Your task to perform on an android device: Set the phone to "Do not disturb". Image 0: 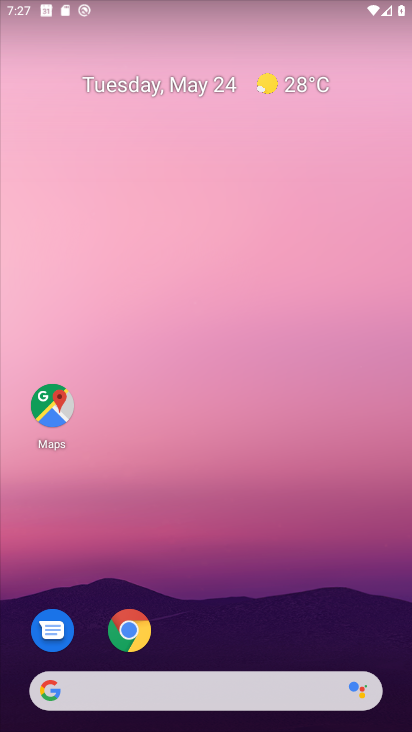
Step 0: drag from (268, 666) to (237, 228)
Your task to perform on an android device: Set the phone to "Do not disturb". Image 1: 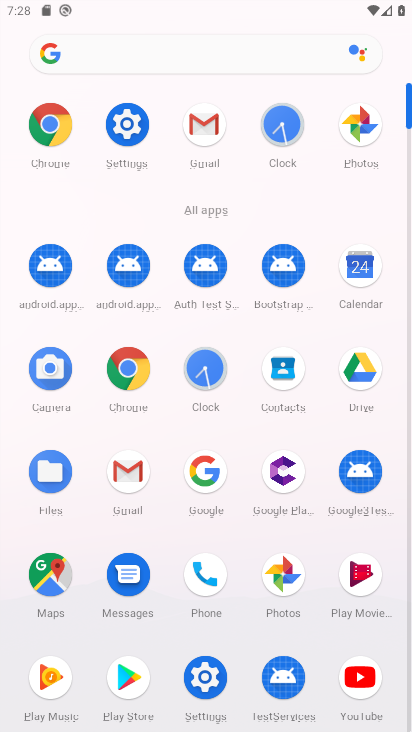
Step 1: click (147, 139)
Your task to perform on an android device: Set the phone to "Do not disturb". Image 2: 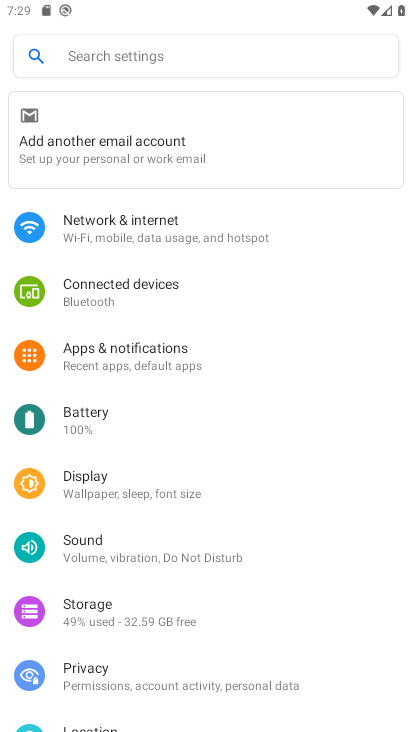
Step 2: click (92, 54)
Your task to perform on an android device: Set the phone to "Do not disturb". Image 3: 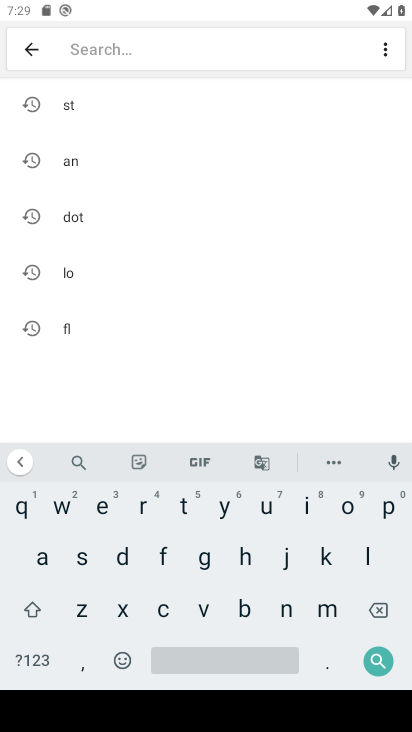
Step 3: click (119, 556)
Your task to perform on an android device: Set the phone to "Do not disturb". Image 4: 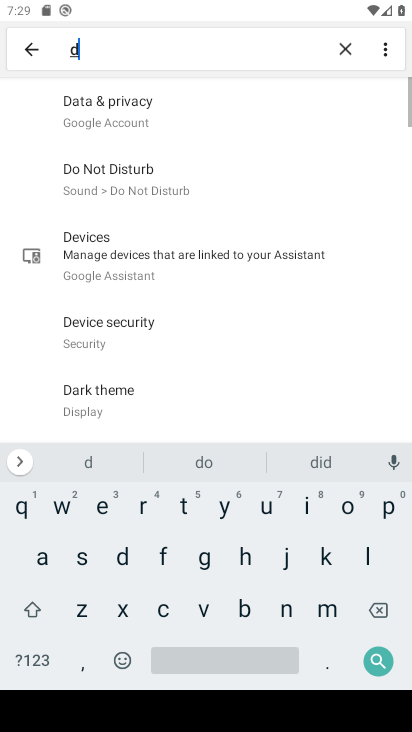
Step 4: click (285, 614)
Your task to perform on an android device: Set the phone to "Do not disturb". Image 5: 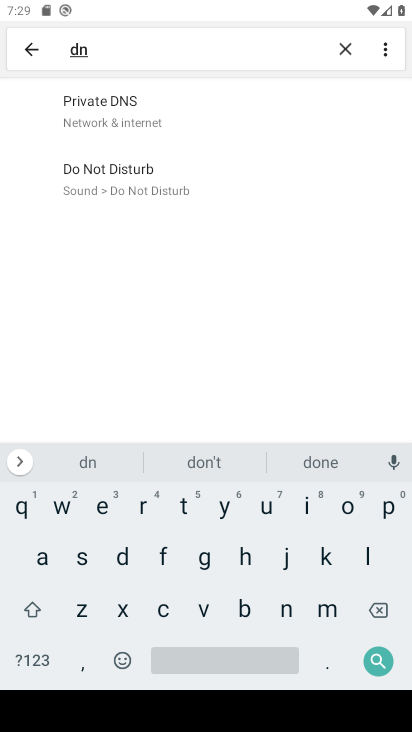
Step 5: drag from (155, 102) to (137, 294)
Your task to perform on an android device: Set the phone to "Do not disturb". Image 6: 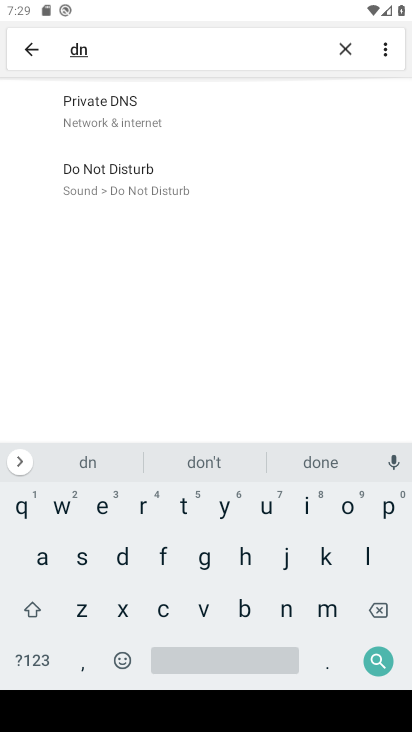
Step 6: click (142, 165)
Your task to perform on an android device: Set the phone to "Do not disturb". Image 7: 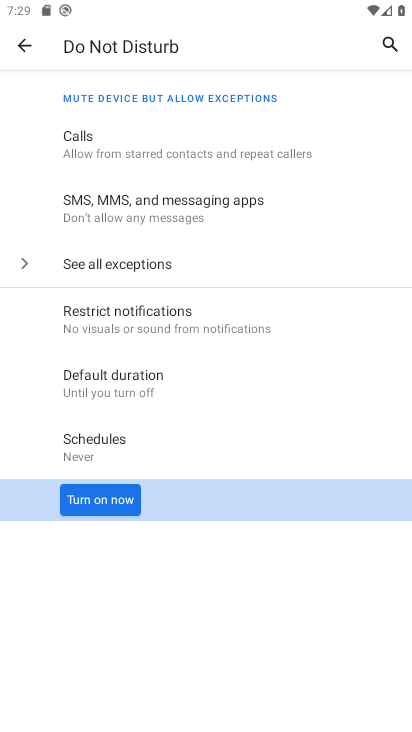
Step 7: click (102, 501)
Your task to perform on an android device: Set the phone to "Do not disturb". Image 8: 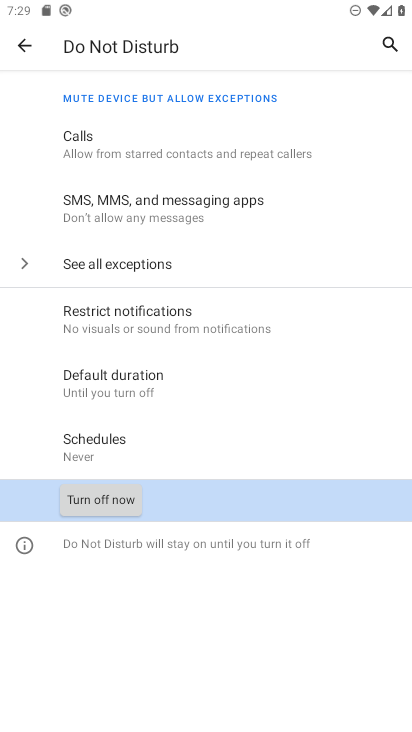
Step 8: task complete